Your task to perform on an android device: open sync settings in chrome Image 0: 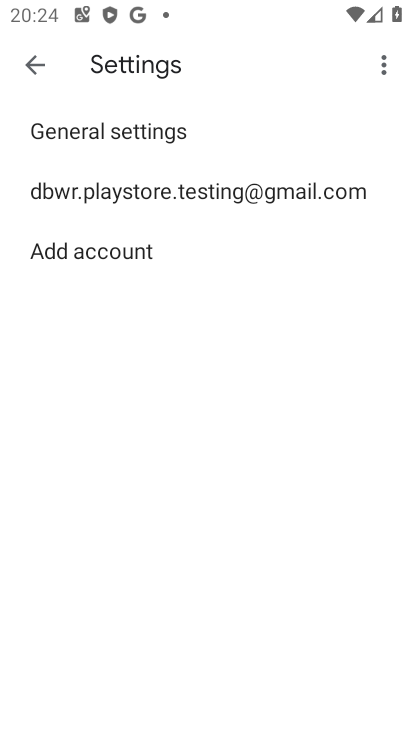
Step 0: press home button
Your task to perform on an android device: open sync settings in chrome Image 1: 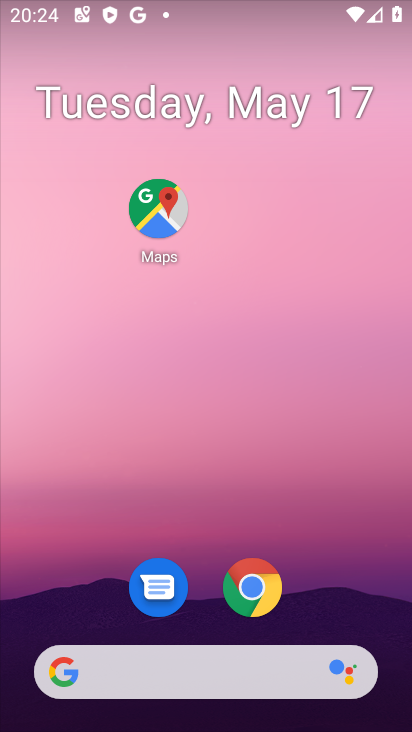
Step 1: click (257, 585)
Your task to perform on an android device: open sync settings in chrome Image 2: 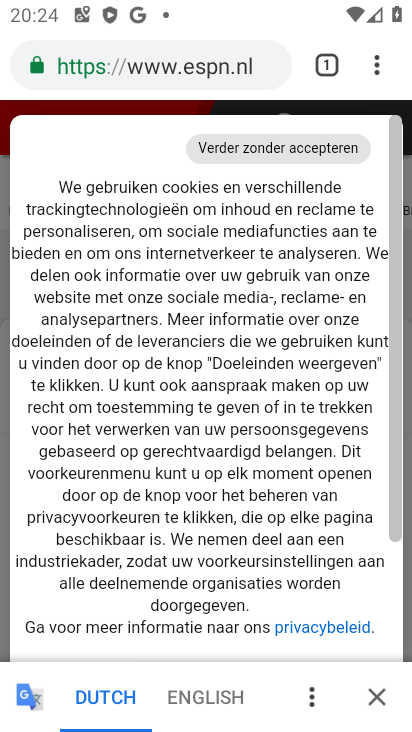
Step 2: click (383, 74)
Your task to perform on an android device: open sync settings in chrome Image 3: 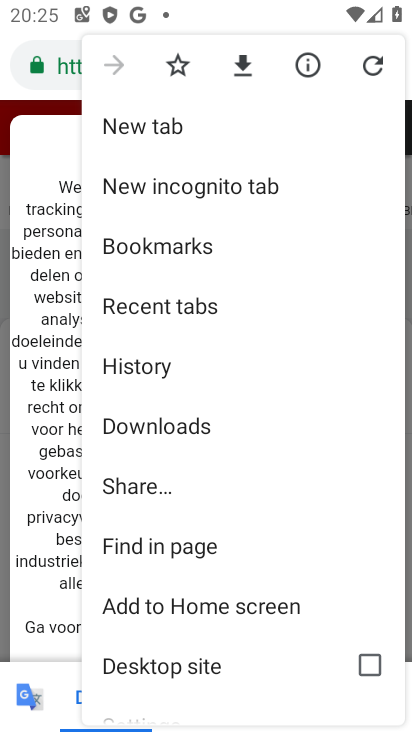
Step 3: drag from (122, 621) to (297, 140)
Your task to perform on an android device: open sync settings in chrome Image 4: 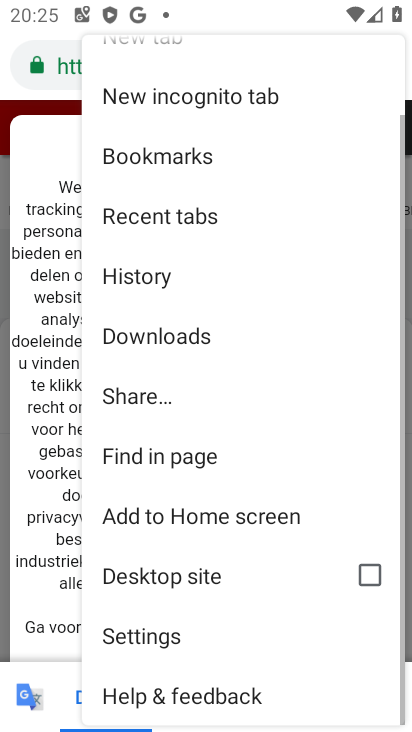
Step 4: click (177, 630)
Your task to perform on an android device: open sync settings in chrome Image 5: 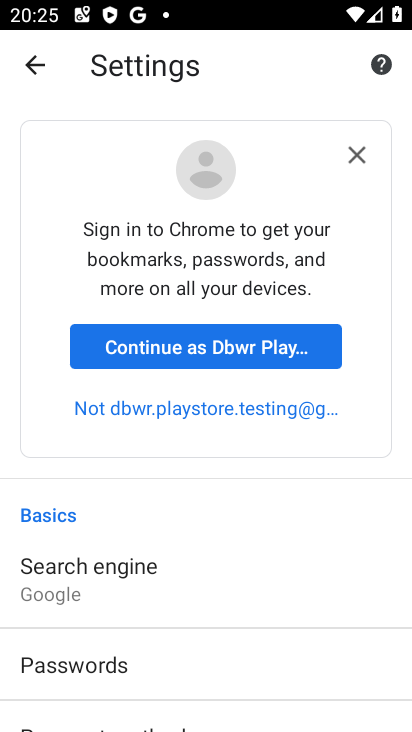
Step 5: drag from (75, 646) to (209, 229)
Your task to perform on an android device: open sync settings in chrome Image 6: 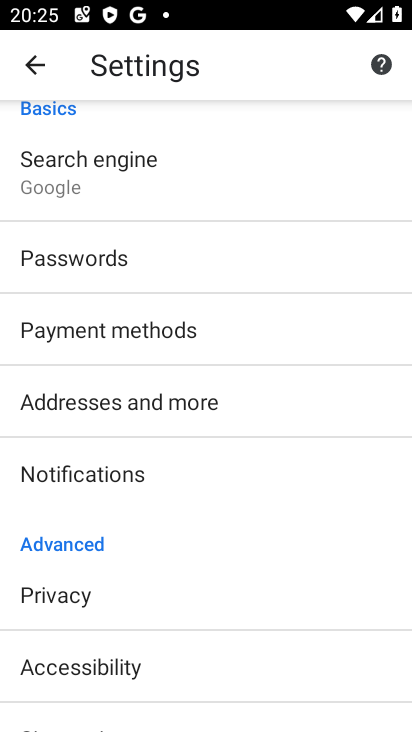
Step 6: drag from (76, 658) to (221, 308)
Your task to perform on an android device: open sync settings in chrome Image 7: 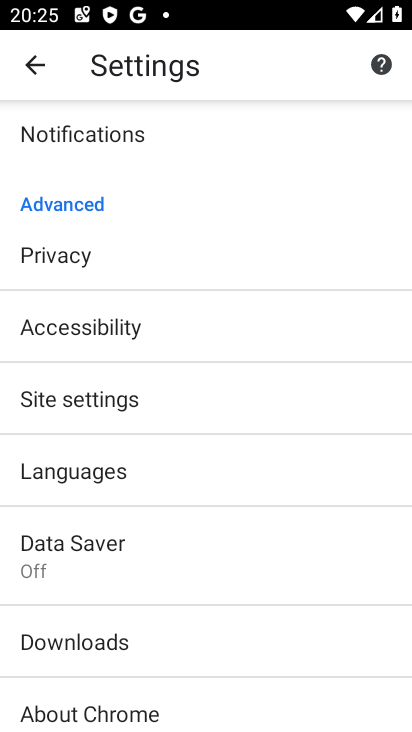
Step 7: drag from (83, 671) to (233, 324)
Your task to perform on an android device: open sync settings in chrome Image 8: 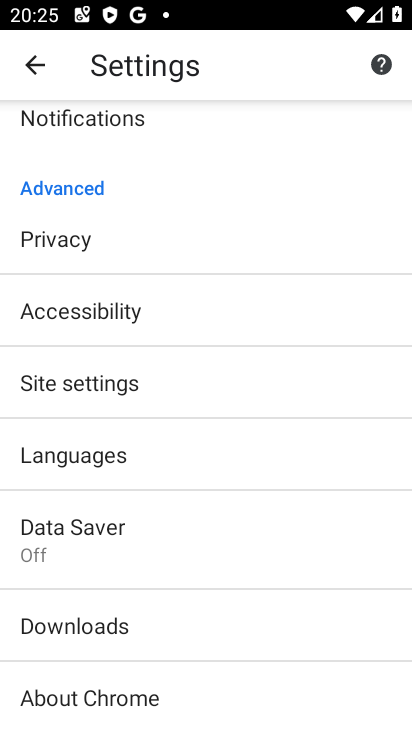
Step 8: drag from (303, 216) to (285, 731)
Your task to perform on an android device: open sync settings in chrome Image 9: 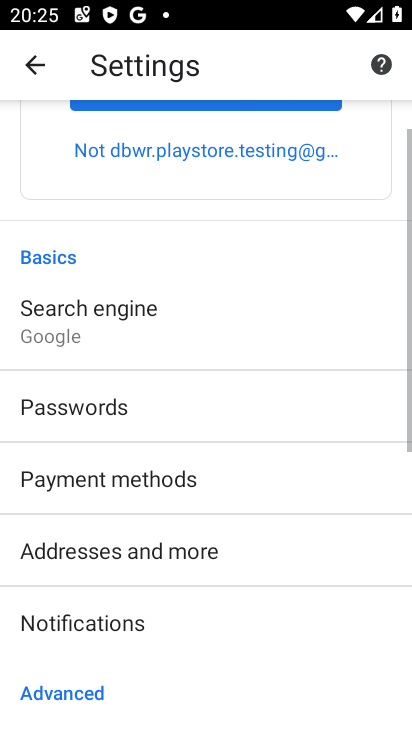
Step 9: drag from (286, 711) to (309, 18)
Your task to perform on an android device: open sync settings in chrome Image 10: 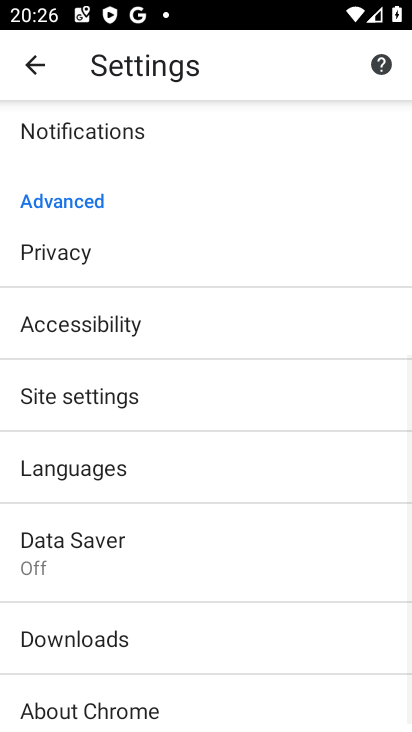
Step 10: click (76, 397)
Your task to perform on an android device: open sync settings in chrome Image 11: 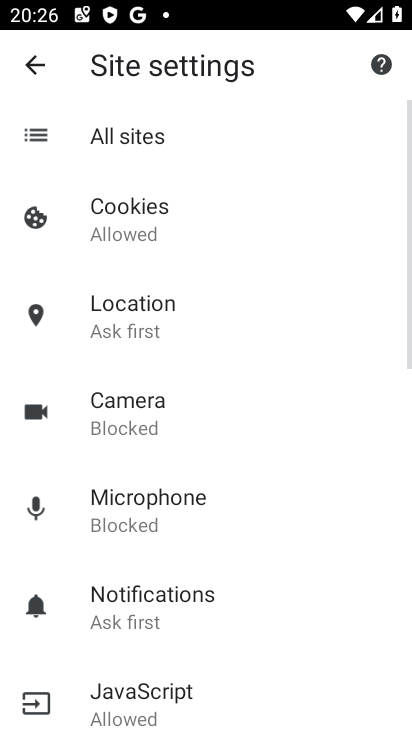
Step 11: drag from (16, 729) to (260, 79)
Your task to perform on an android device: open sync settings in chrome Image 12: 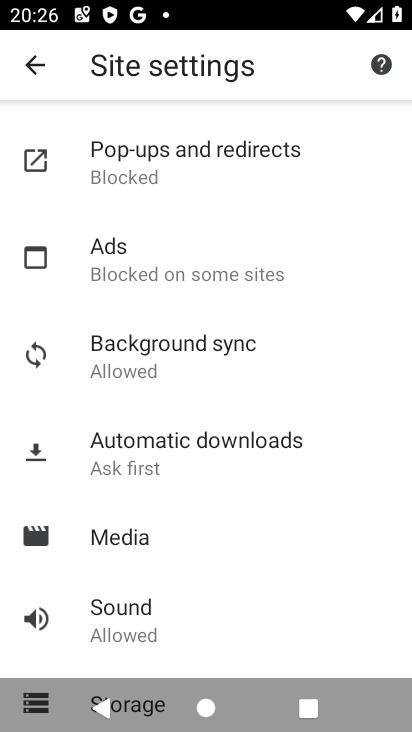
Step 12: click (186, 351)
Your task to perform on an android device: open sync settings in chrome Image 13: 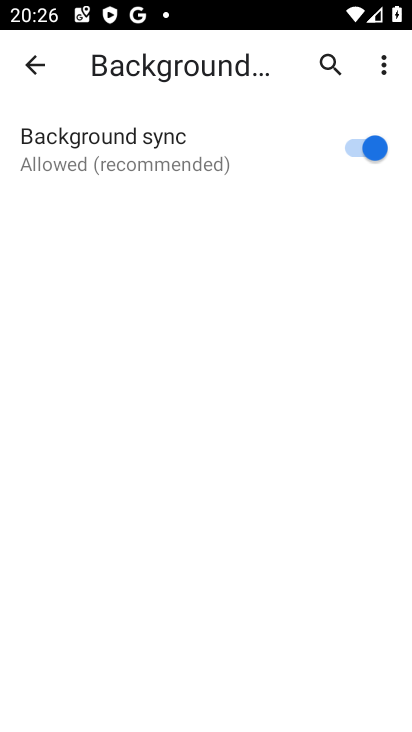
Step 13: task complete